Your task to perform on an android device: What time is it in Paris? Image 0: 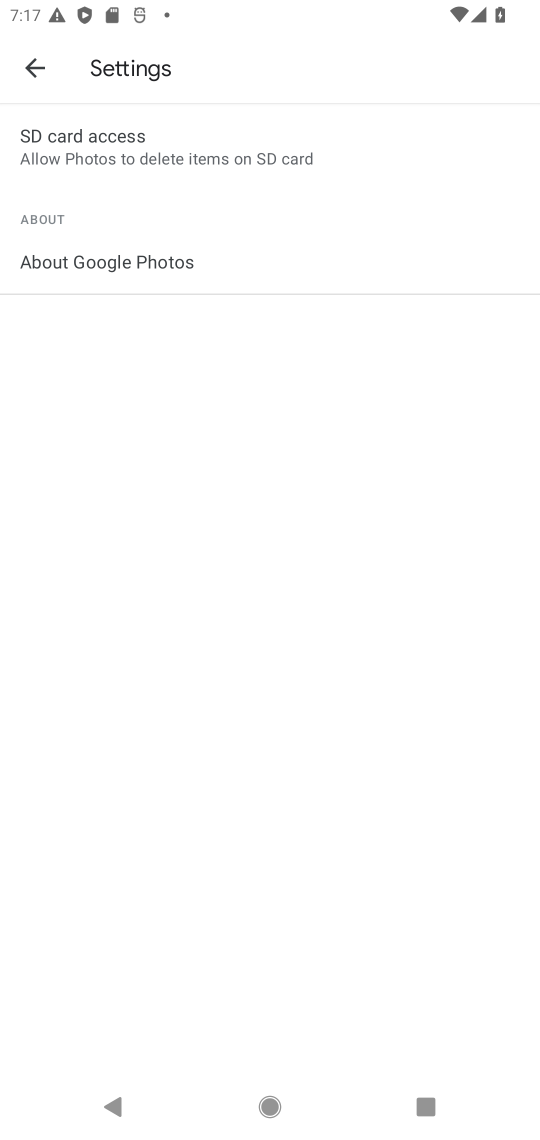
Step 0: press home button
Your task to perform on an android device: What time is it in Paris? Image 1: 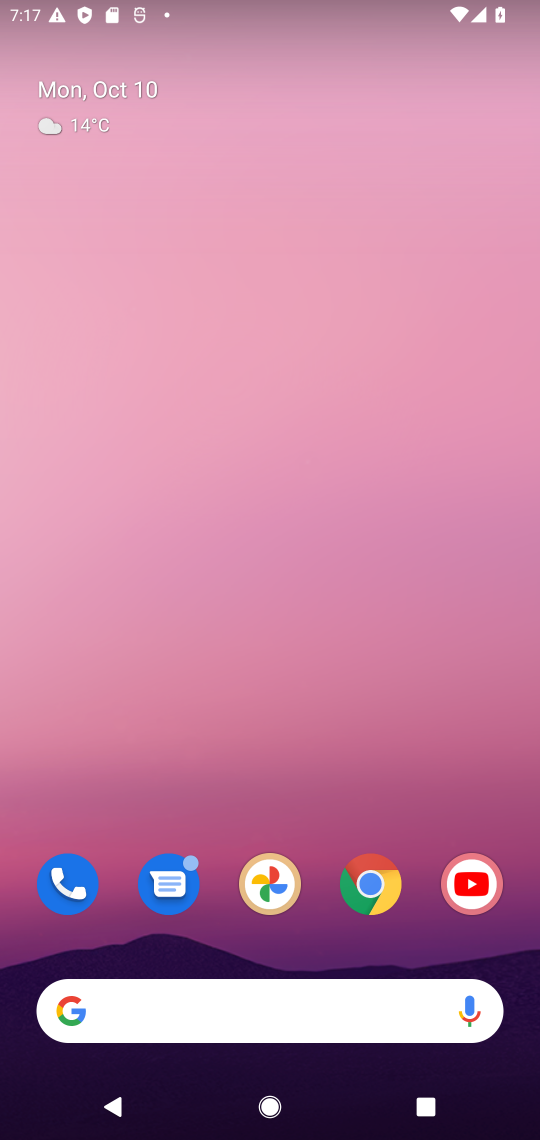
Step 1: click (343, 1009)
Your task to perform on an android device: What time is it in Paris? Image 2: 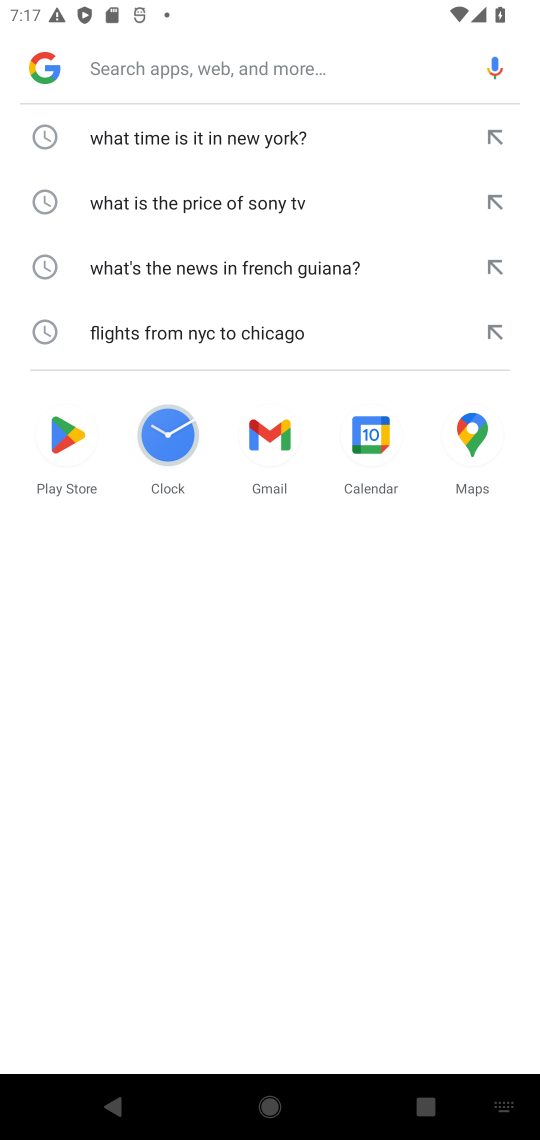
Step 2: type "what time is it in paris?"
Your task to perform on an android device: What time is it in Paris? Image 3: 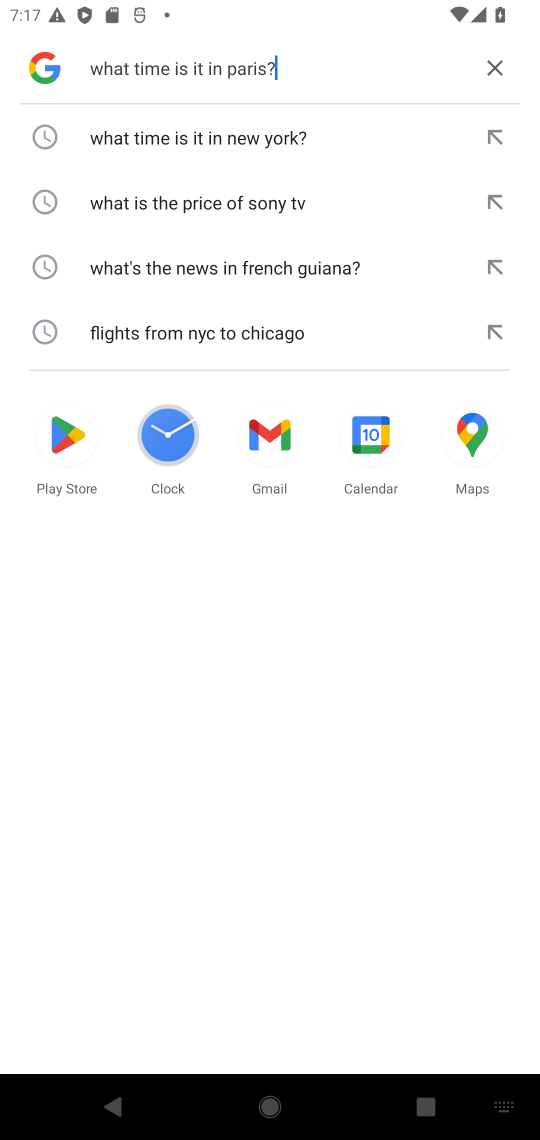
Step 3: type ""
Your task to perform on an android device: What time is it in Paris? Image 4: 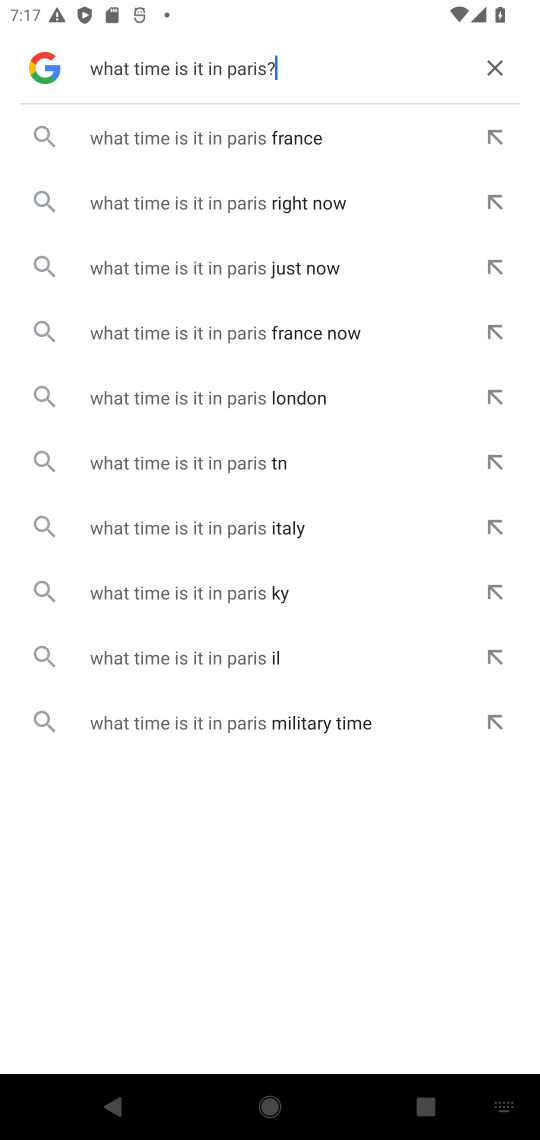
Step 4: click (243, 139)
Your task to perform on an android device: What time is it in Paris? Image 5: 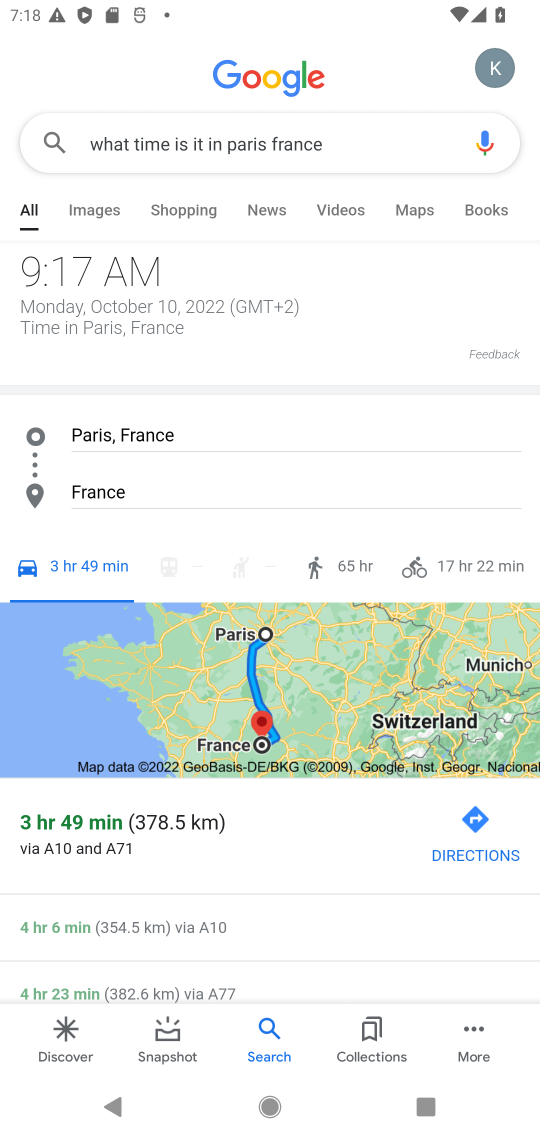
Step 5: drag from (247, 826) to (236, 364)
Your task to perform on an android device: What time is it in Paris? Image 6: 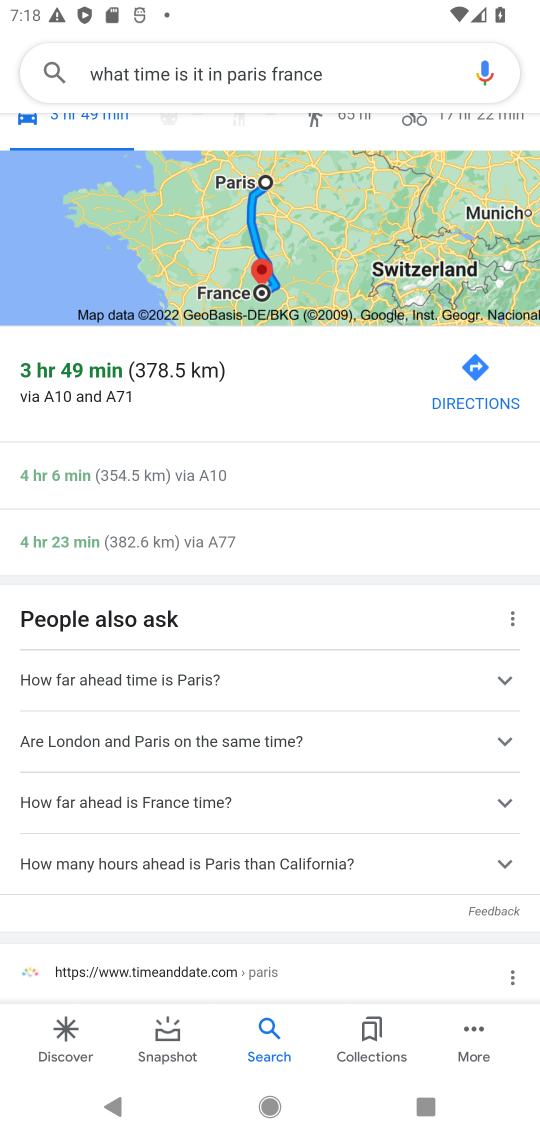
Step 6: drag from (327, 790) to (356, 317)
Your task to perform on an android device: What time is it in Paris? Image 7: 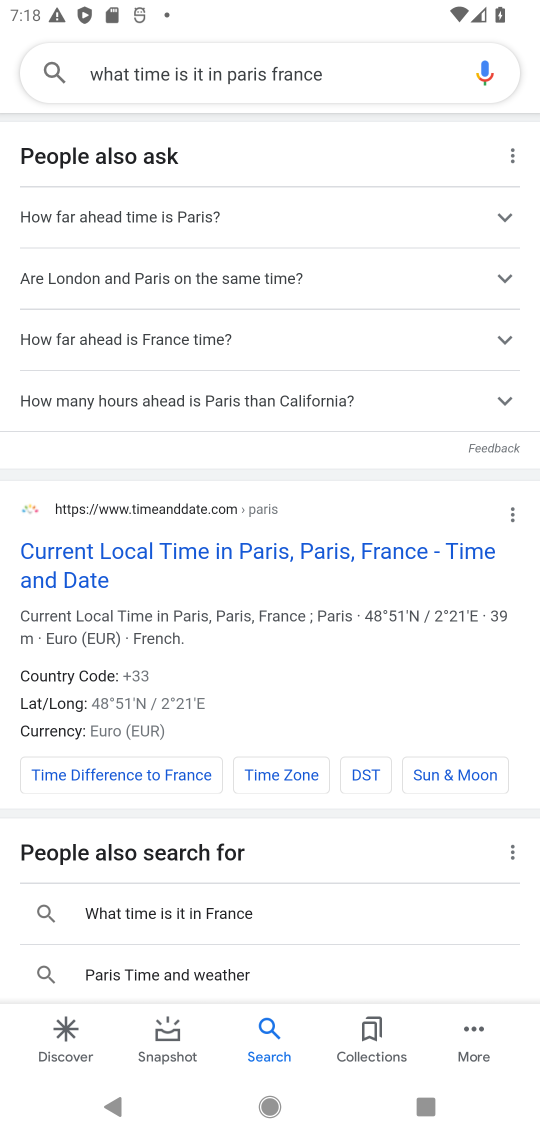
Step 7: click (209, 528)
Your task to perform on an android device: What time is it in Paris? Image 8: 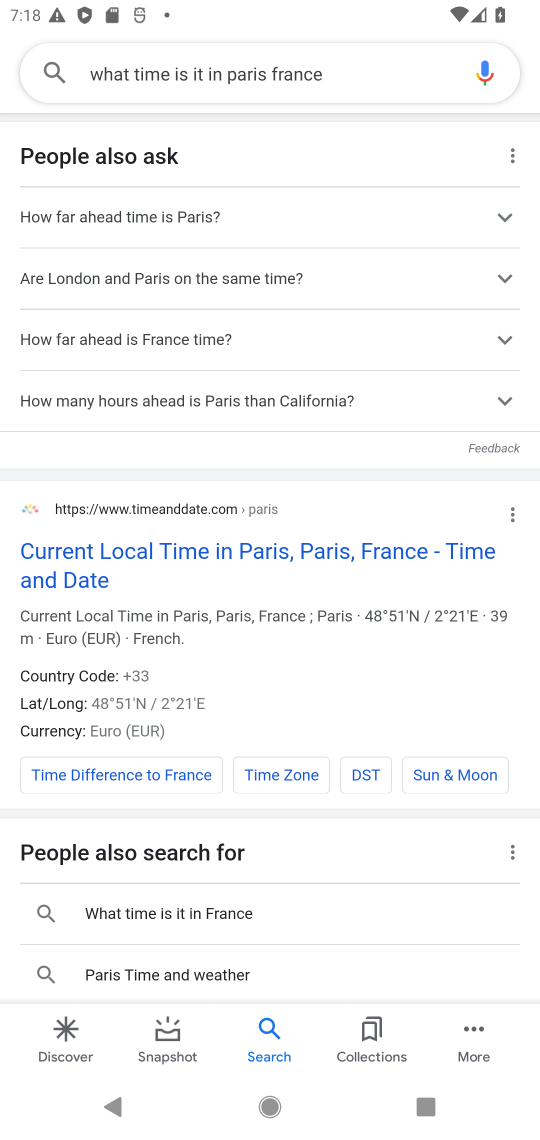
Step 8: click (201, 553)
Your task to perform on an android device: What time is it in Paris? Image 9: 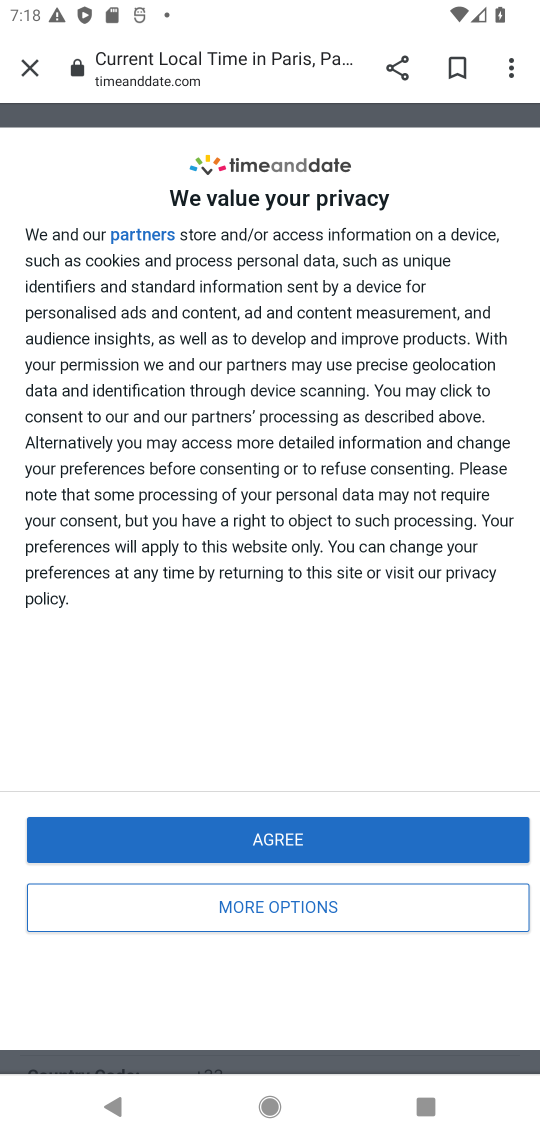
Step 9: drag from (214, 760) to (266, 273)
Your task to perform on an android device: What time is it in Paris? Image 10: 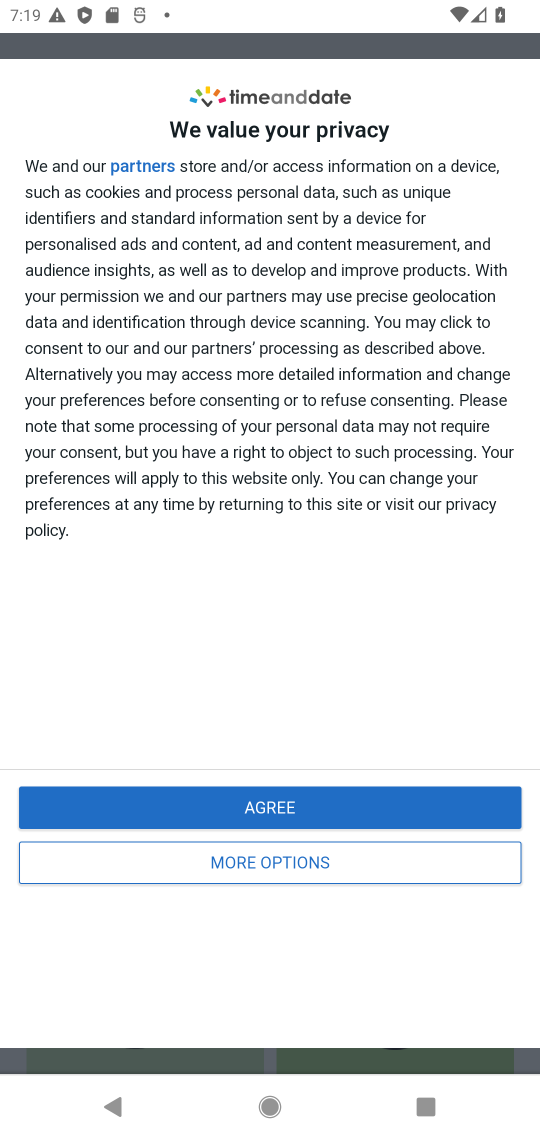
Step 10: drag from (325, 697) to (387, 283)
Your task to perform on an android device: What time is it in Paris? Image 11: 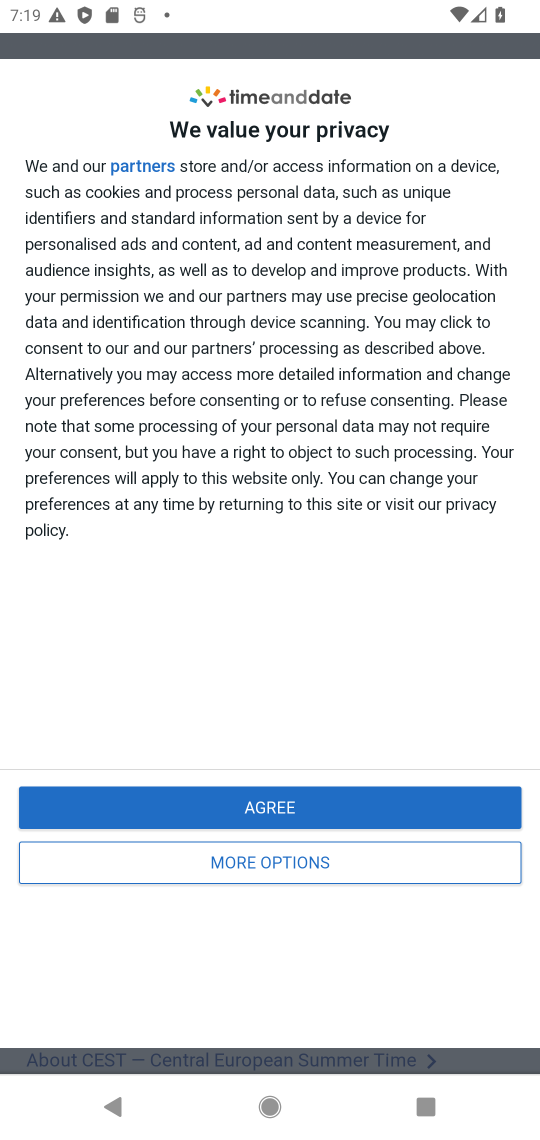
Step 11: click (360, 796)
Your task to perform on an android device: What time is it in Paris? Image 12: 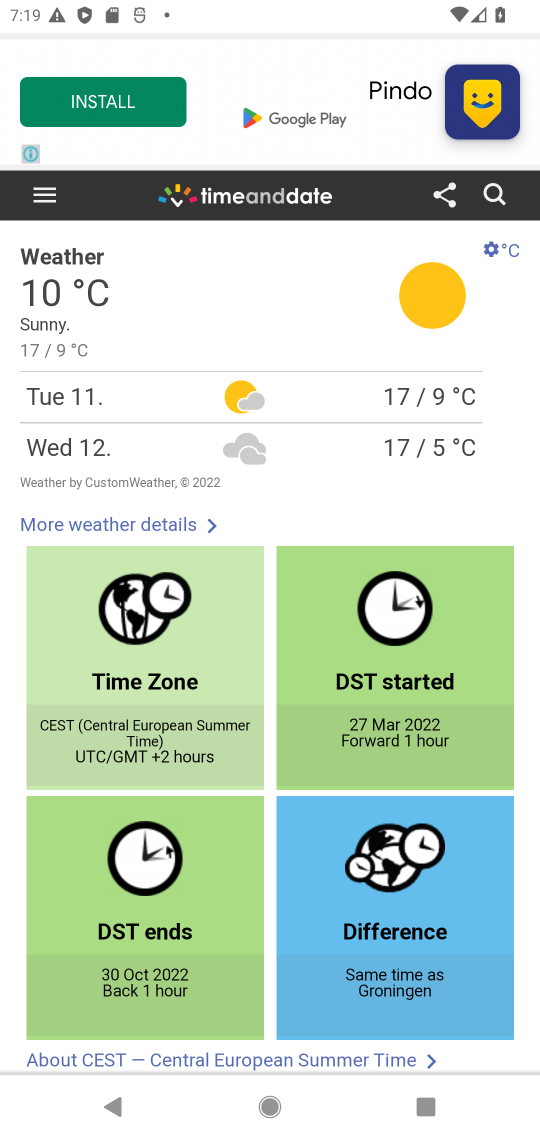
Step 12: drag from (353, 878) to (424, 269)
Your task to perform on an android device: What time is it in Paris? Image 13: 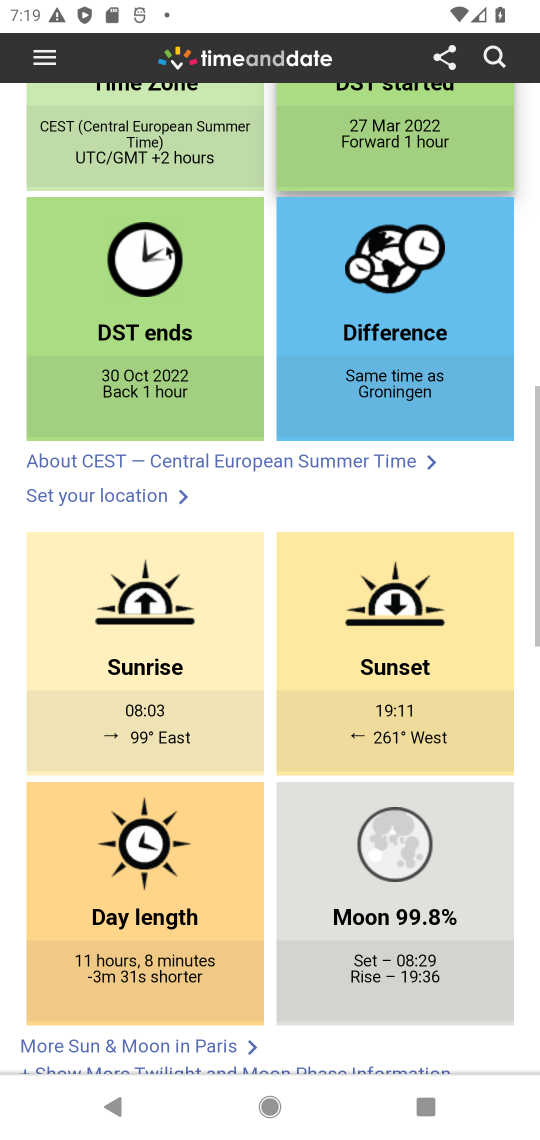
Step 13: drag from (384, 604) to (419, 289)
Your task to perform on an android device: What time is it in Paris? Image 14: 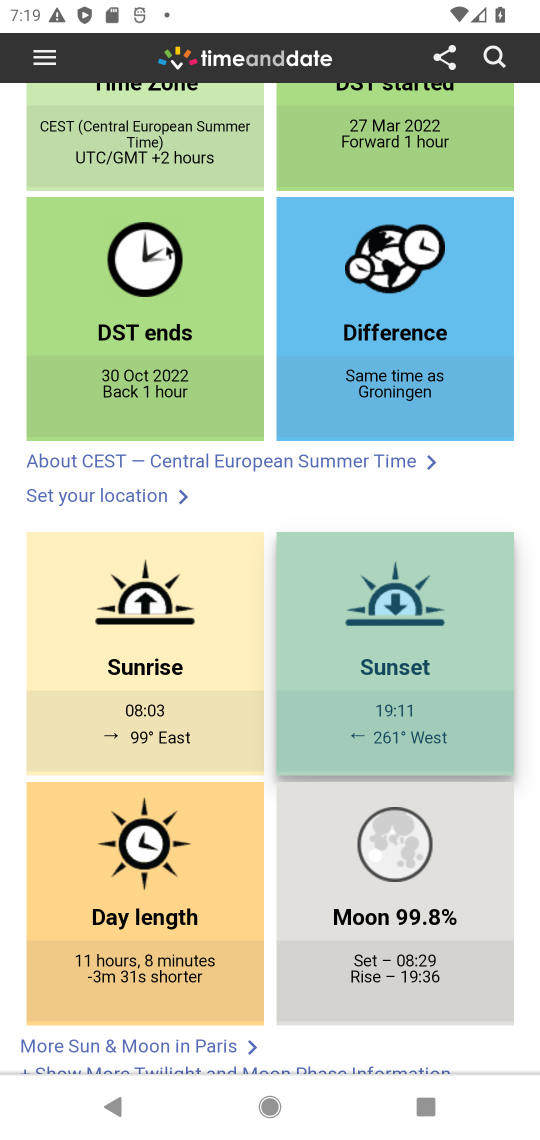
Step 14: drag from (390, 610) to (389, 360)
Your task to perform on an android device: What time is it in Paris? Image 15: 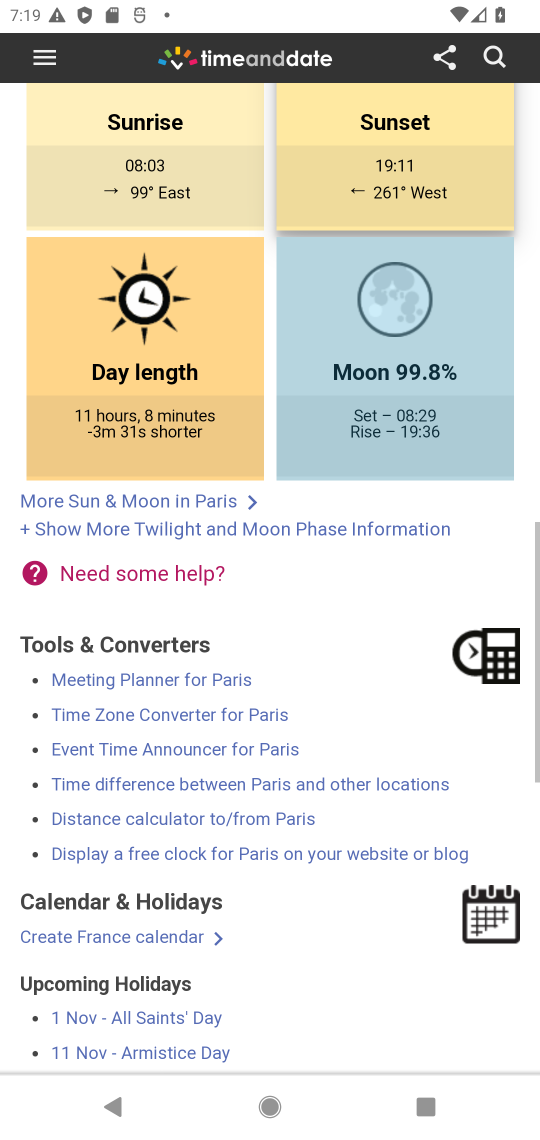
Step 15: drag from (360, 697) to (411, 360)
Your task to perform on an android device: What time is it in Paris? Image 16: 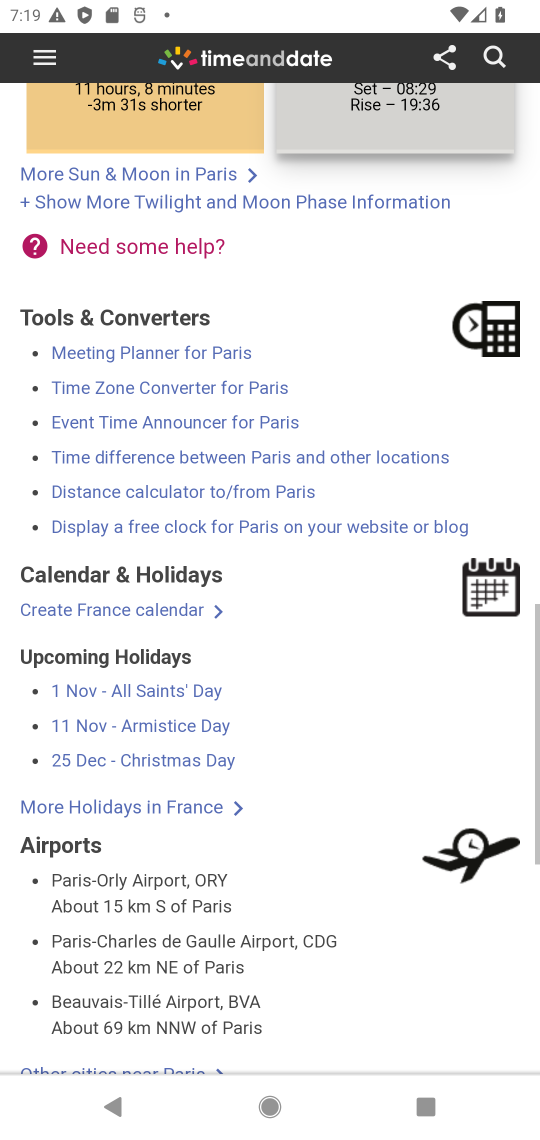
Step 16: click (381, 571)
Your task to perform on an android device: What time is it in Paris? Image 17: 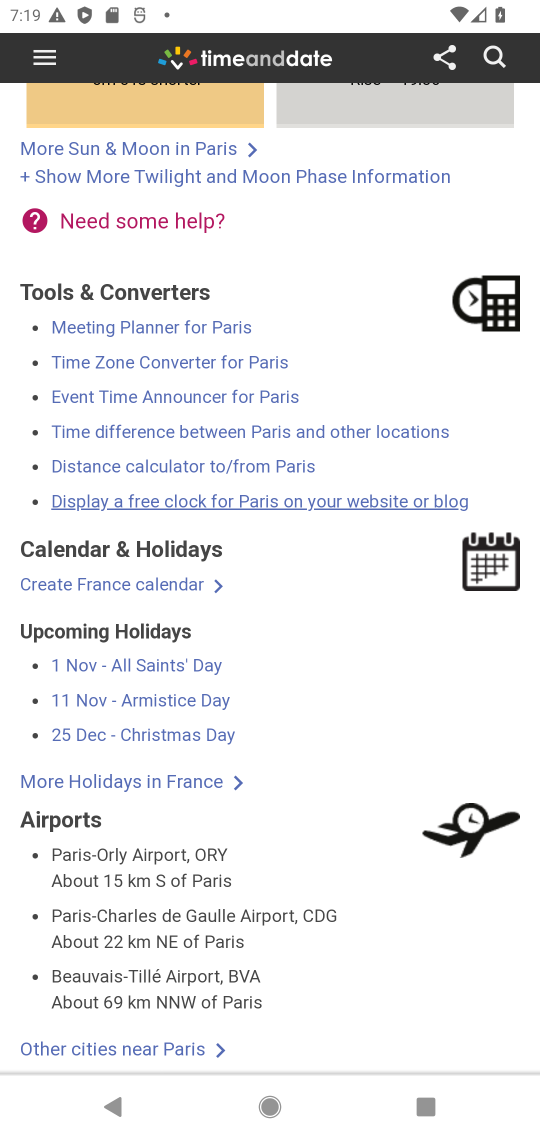
Step 17: drag from (459, 943) to (391, 305)
Your task to perform on an android device: What time is it in Paris? Image 18: 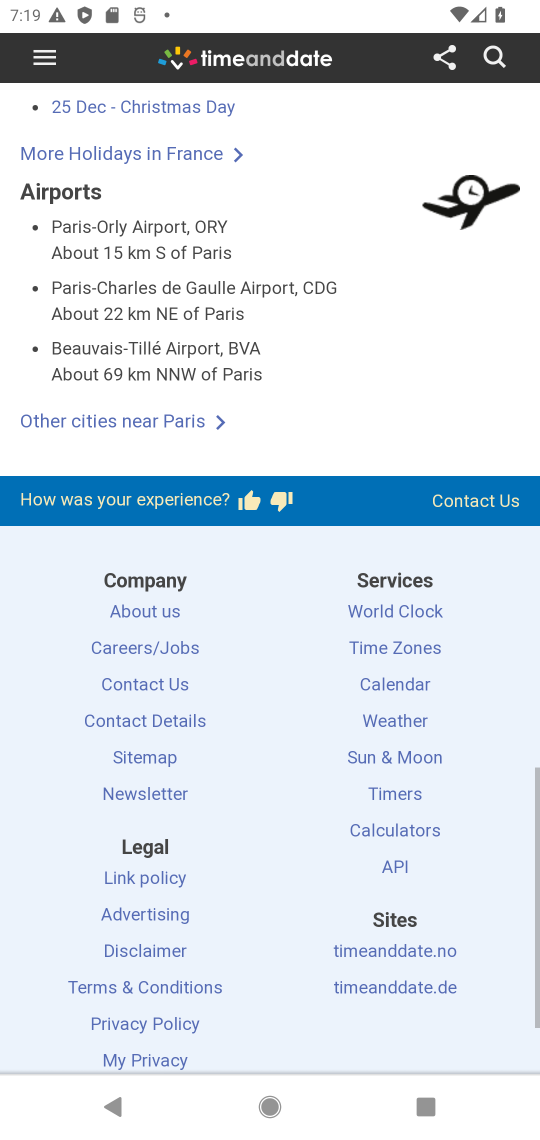
Step 18: drag from (327, 851) to (405, 282)
Your task to perform on an android device: What time is it in Paris? Image 19: 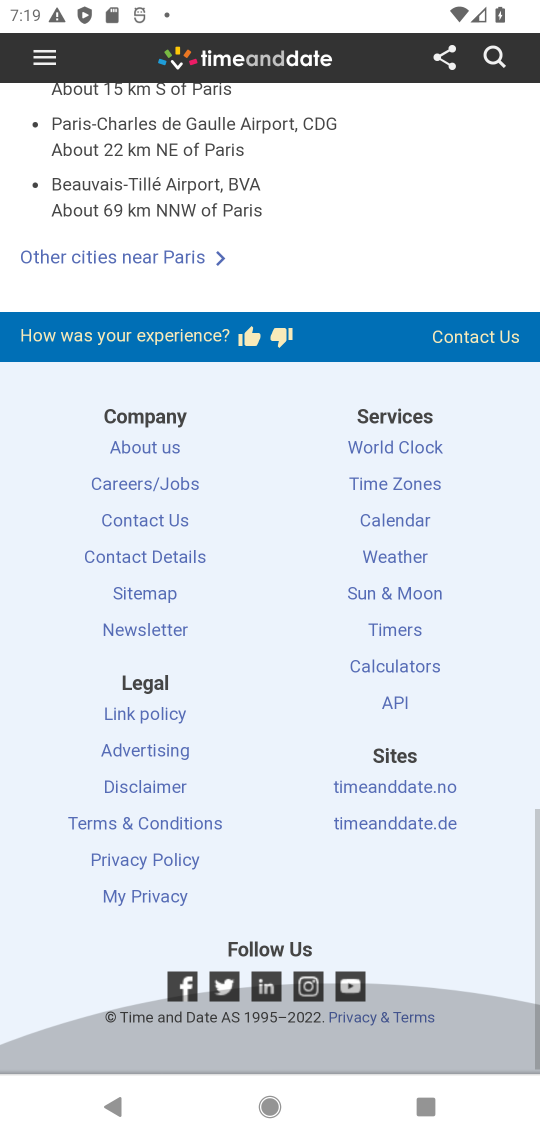
Step 19: drag from (393, 803) to (442, 363)
Your task to perform on an android device: What time is it in Paris? Image 20: 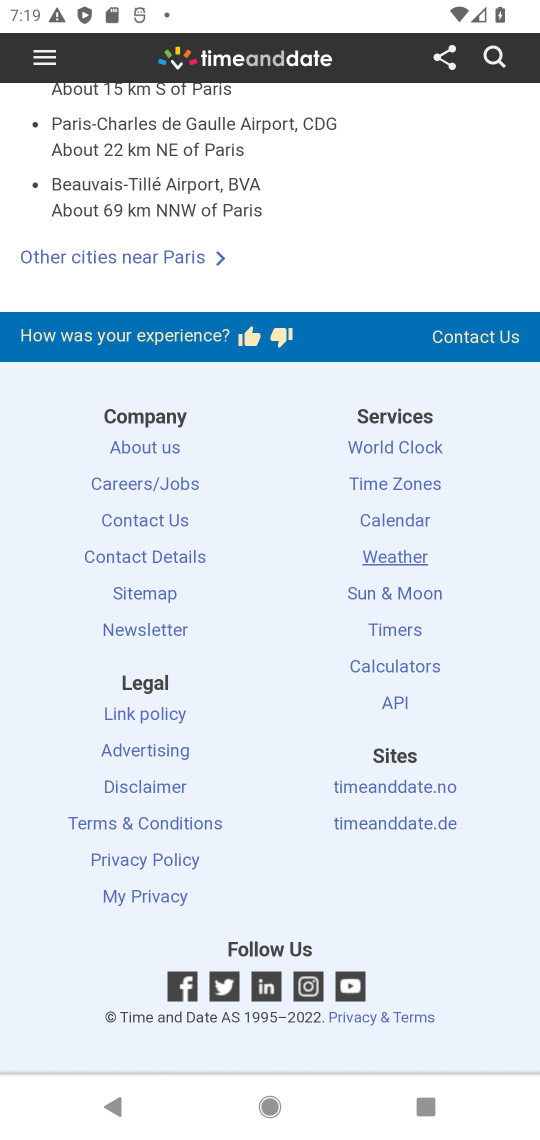
Step 20: drag from (358, 800) to (354, 517)
Your task to perform on an android device: What time is it in Paris? Image 21: 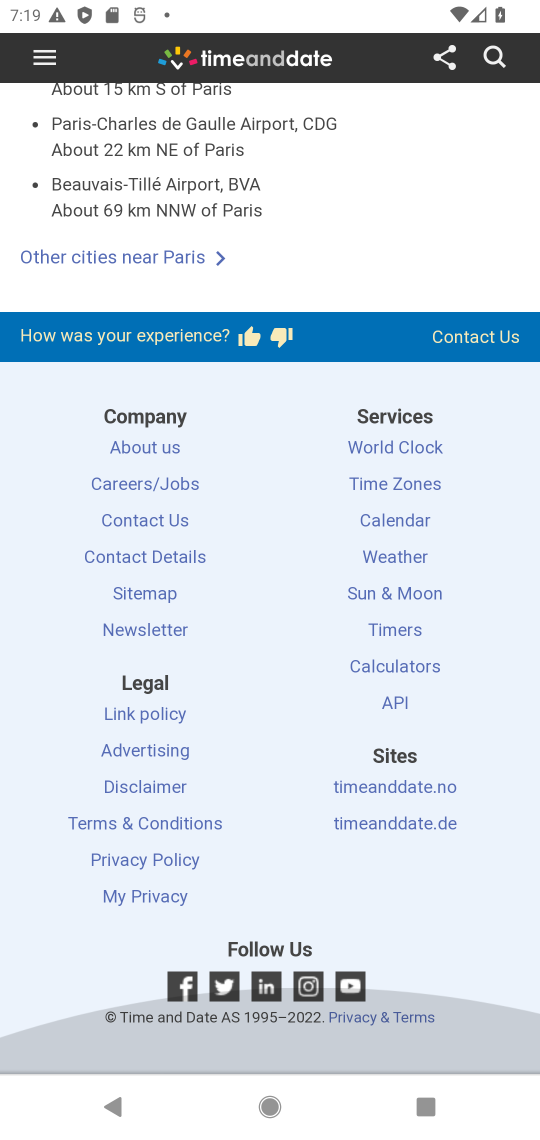
Step 21: drag from (392, 540) to (403, 885)
Your task to perform on an android device: What time is it in Paris? Image 22: 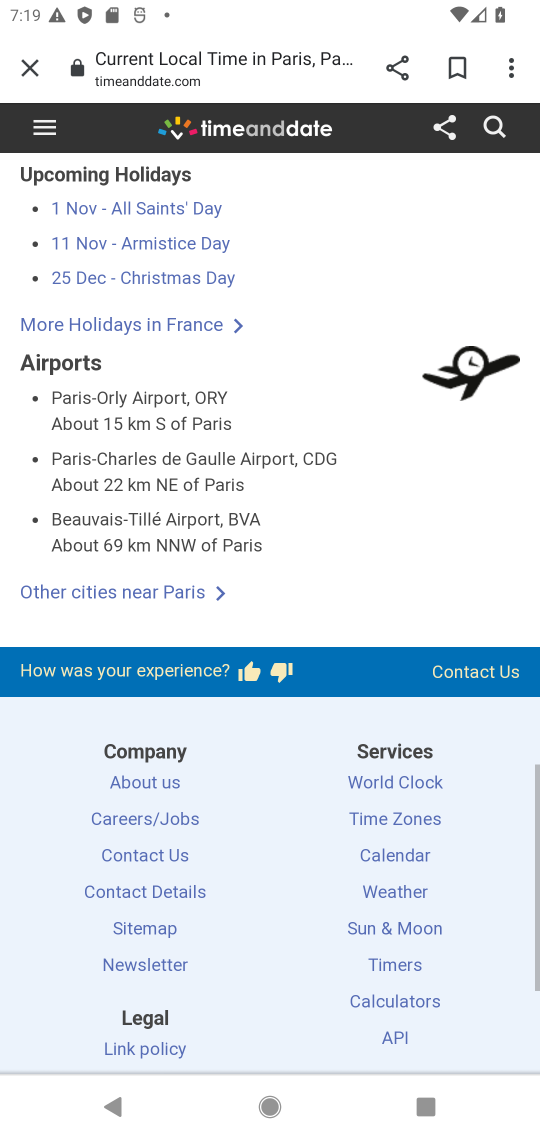
Step 22: drag from (400, 240) to (425, 788)
Your task to perform on an android device: What time is it in Paris? Image 23: 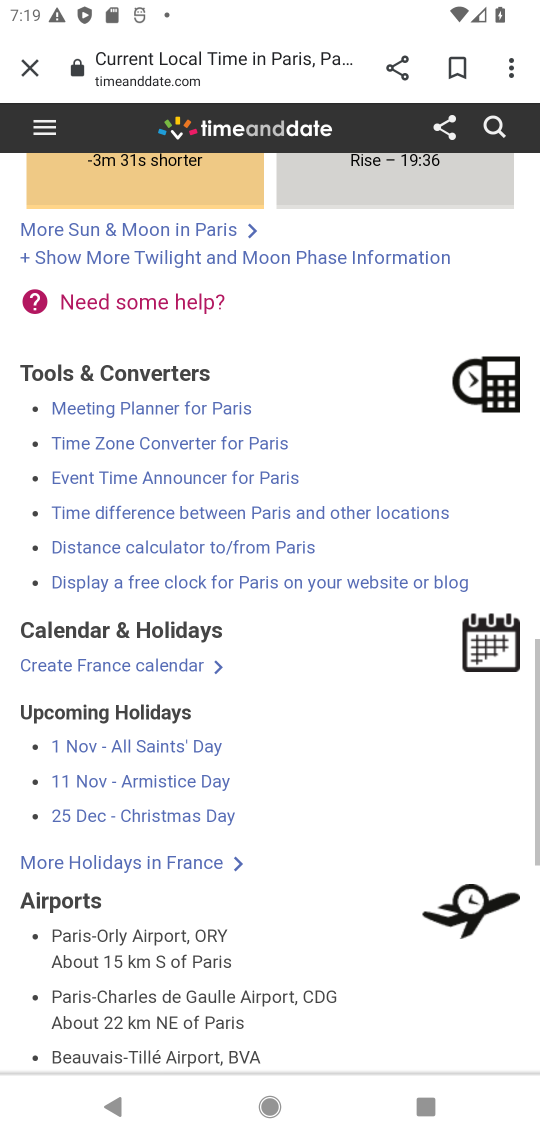
Step 23: drag from (435, 471) to (468, 837)
Your task to perform on an android device: What time is it in Paris? Image 24: 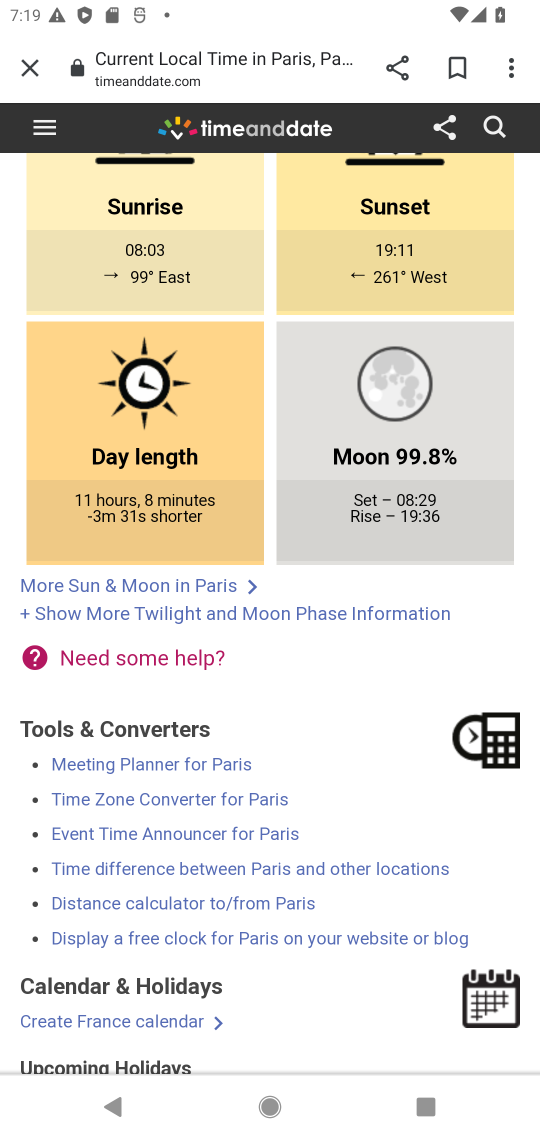
Step 24: drag from (327, 335) to (351, 814)
Your task to perform on an android device: What time is it in Paris? Image 25: 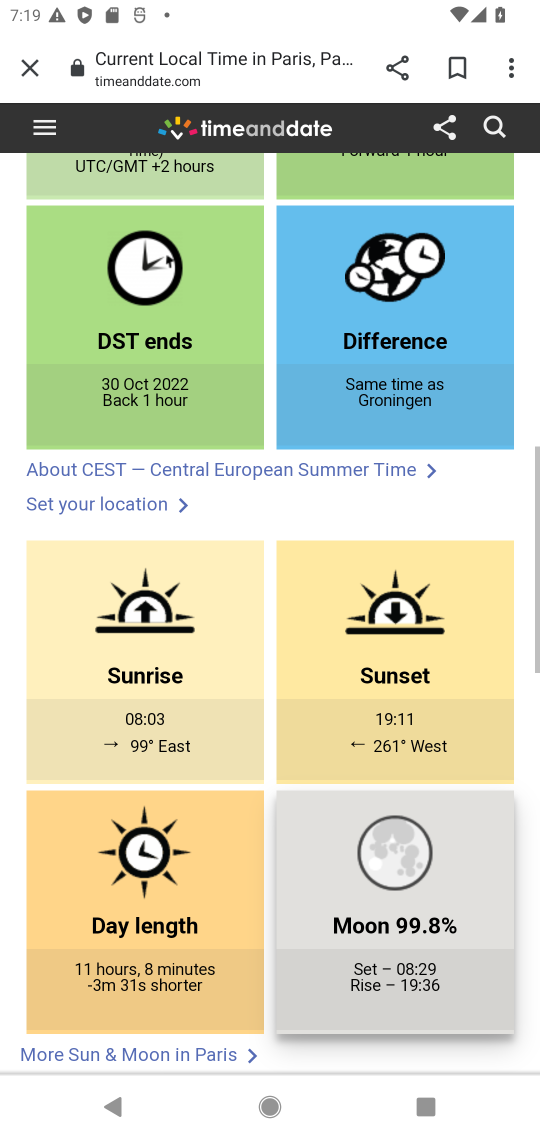
Step 25: drag from (309, 383) to (308, 899)
Your task to perform on an android device: What time is it in Paris? Image 26: 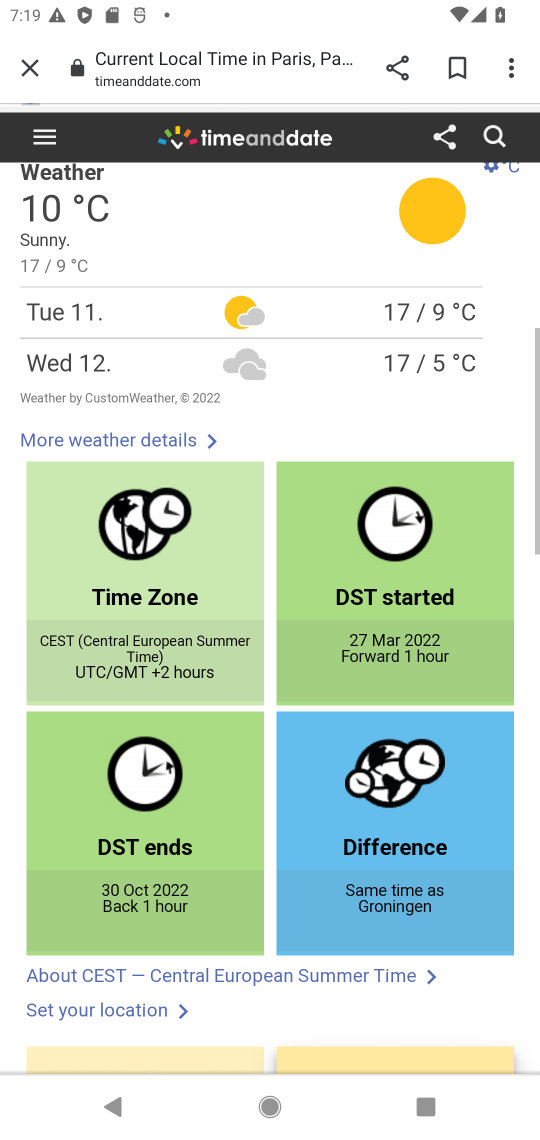
Step 26: drag from (274, 401) to (274, 848)
Your task to perform on an android device: What time is it in Paris? Image 27: 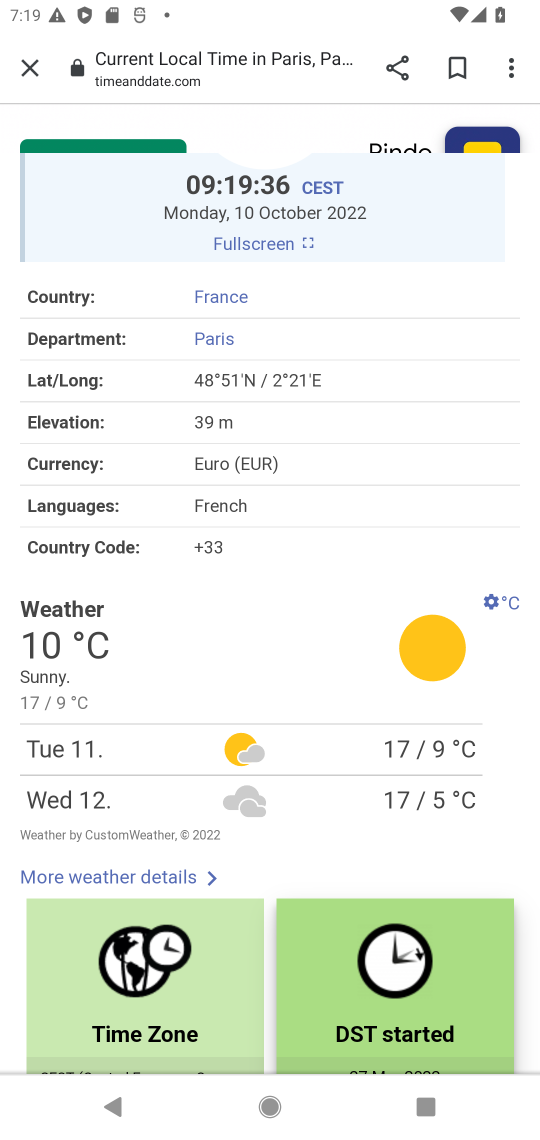
Step 27: drag from (250, 346) to (230, 806)
Your task to perform on an android device: What time is it in Paris? Image 28: 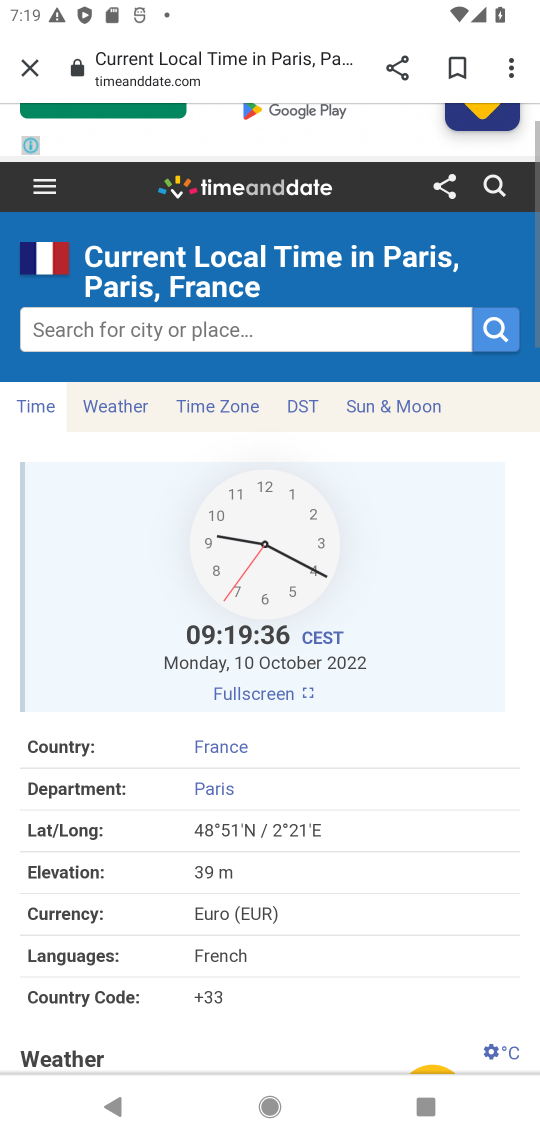
Step 28: drag from (271, 509) to (271, 744)
Your task to perform on an android device: What time is it in Paris? Image 29: 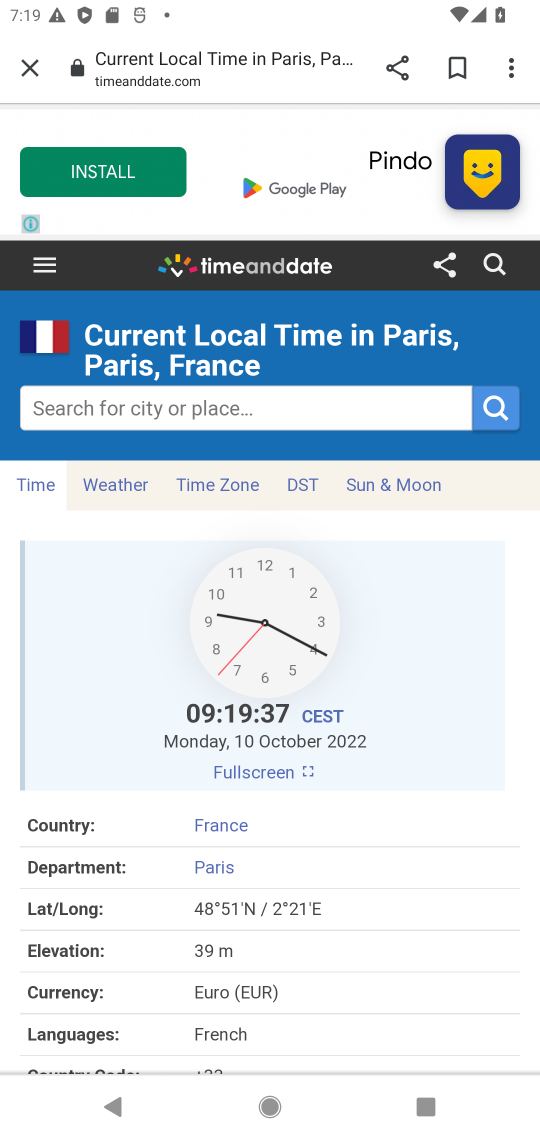
Step 29: press back button
Your task to perform on an android device: What time is it in Paris? Image 30: 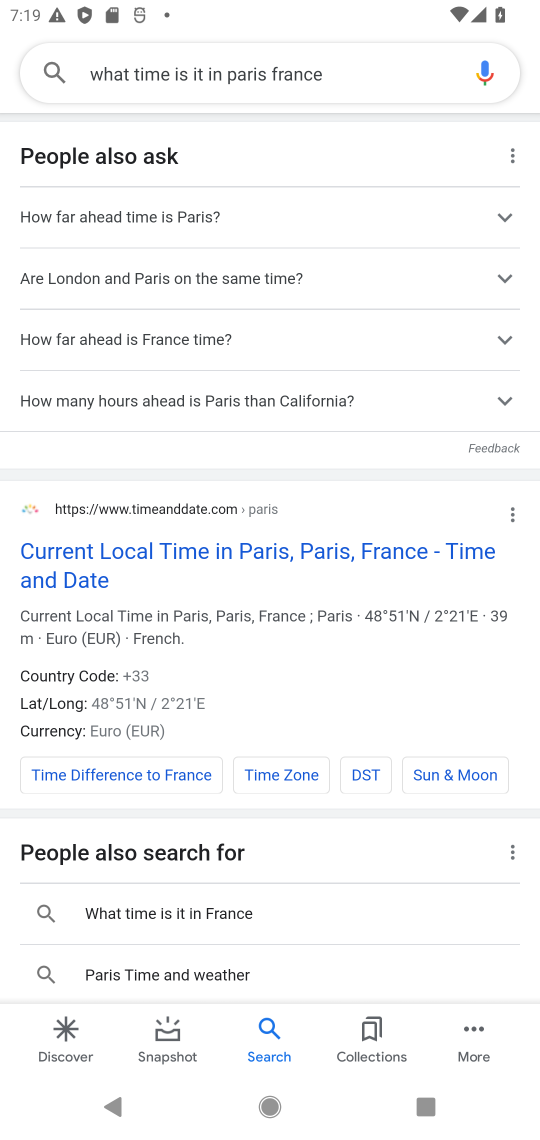
Step 30: drag from (157, 257) to (215, 988)
Your task to perform on an android device: What time is it in Paris? Image 31: 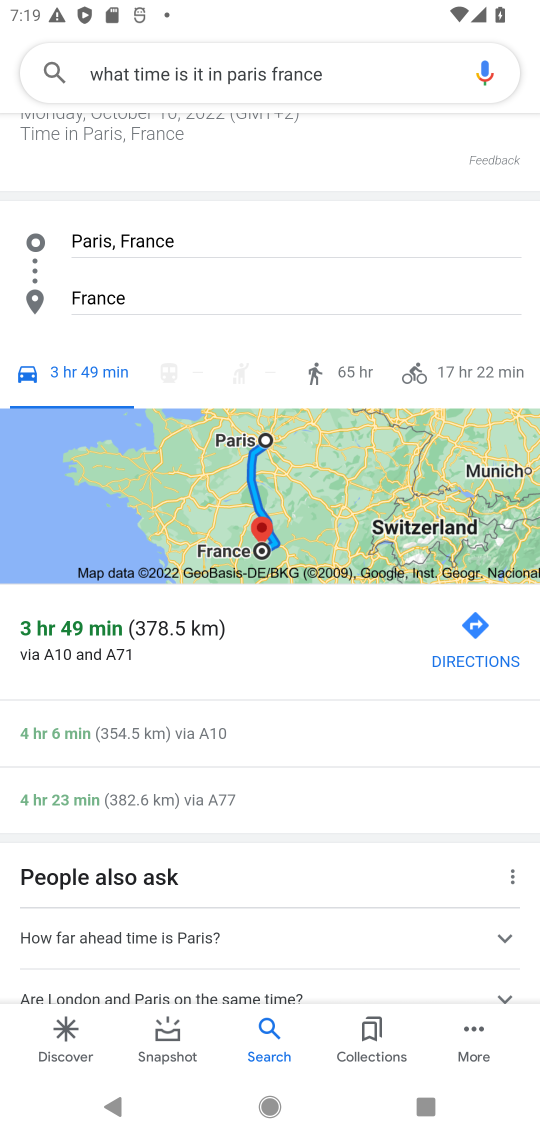
Step 31: drag from (305, 364) to (373, 228)
Your task to perform on an android device: What time is it in Paris? Image 32: 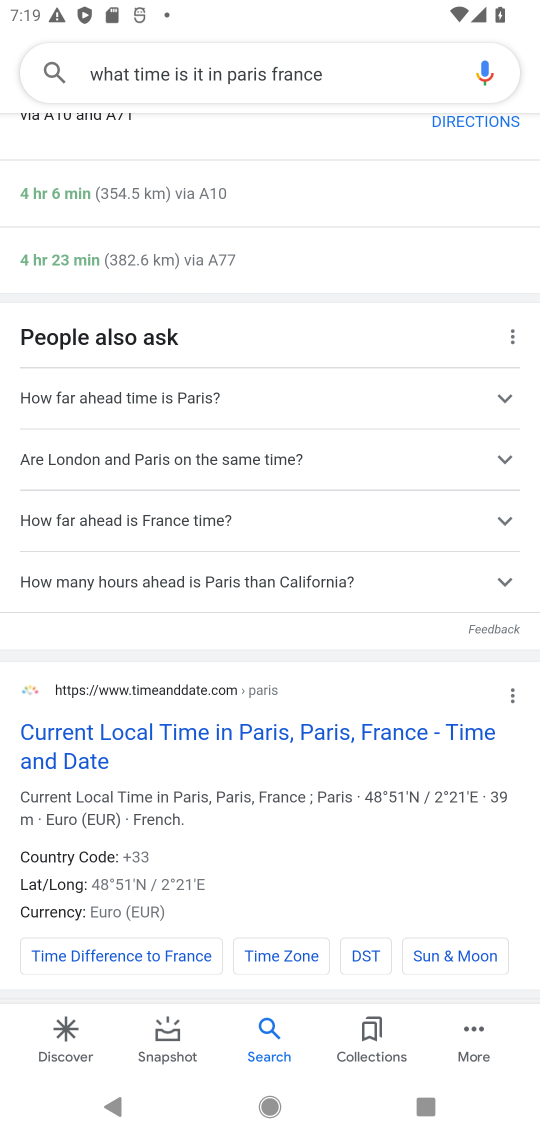
Step 32: drag from (299, 864) to (335, 408)
Your task to perform on an android device: What time is it in Paris? Image 33: 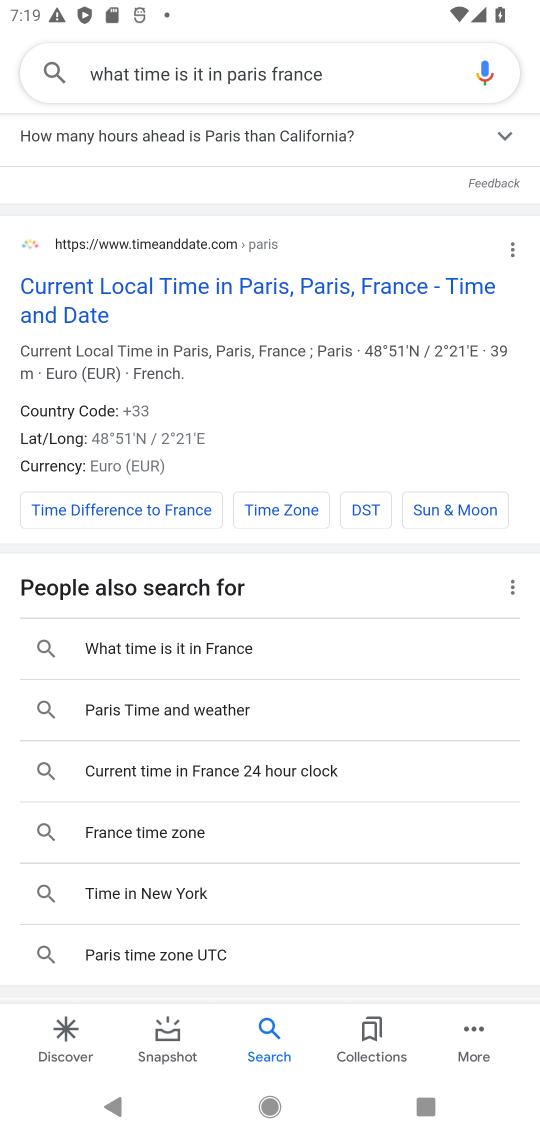
Step 33: click (227, 635)
Your task to perform on an android device: What time is it in Paris? Image 34: 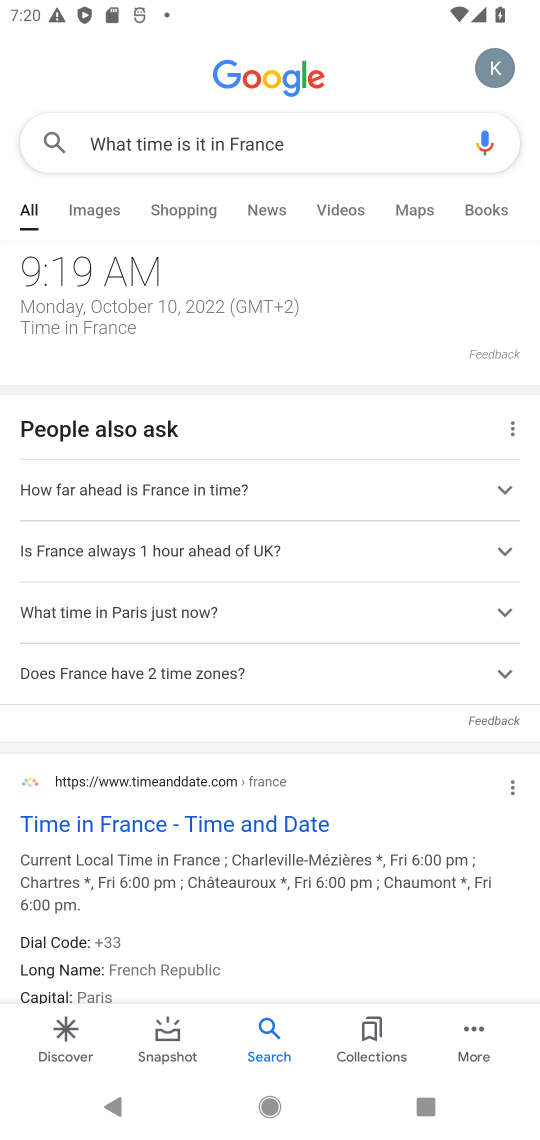
Step 34: task complete